Your task to perform on an android device: turn pop-ups off in chrome Image 0: 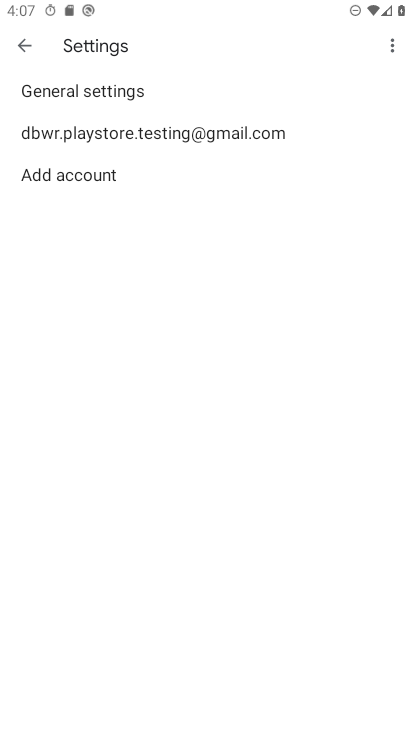
Step 0: press home button
Your task to perform on an android device: turn pop-ups off in chrome Image 1: 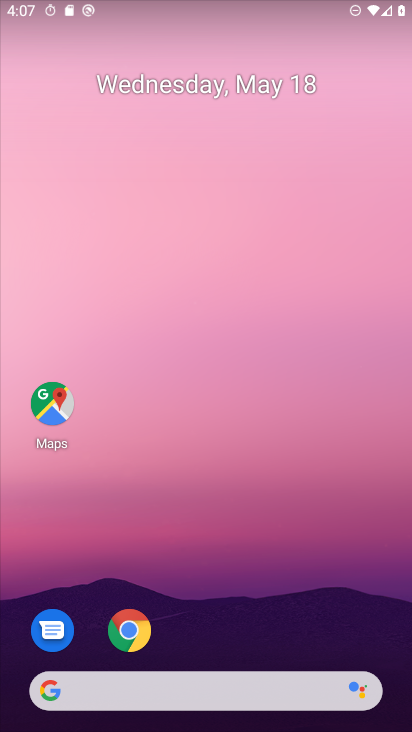
Step 1: click (131, 624)
Your task to perform on an android device: turn pop-ups off in chrome Image 2: 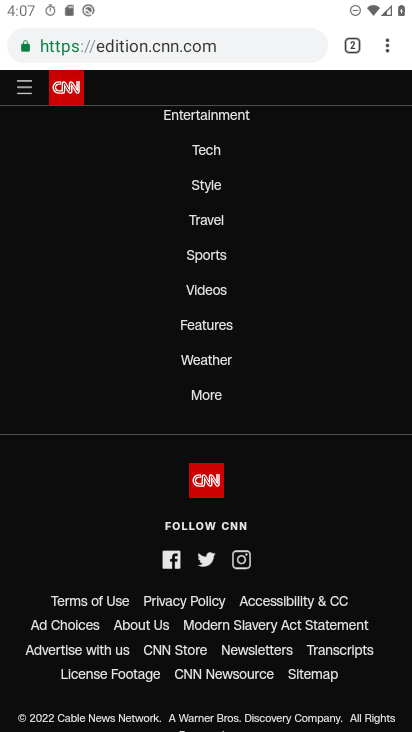
Step 2: click (387, 44)
Your task to perform on an android device: turn pop-ups off in chrome Image 3: 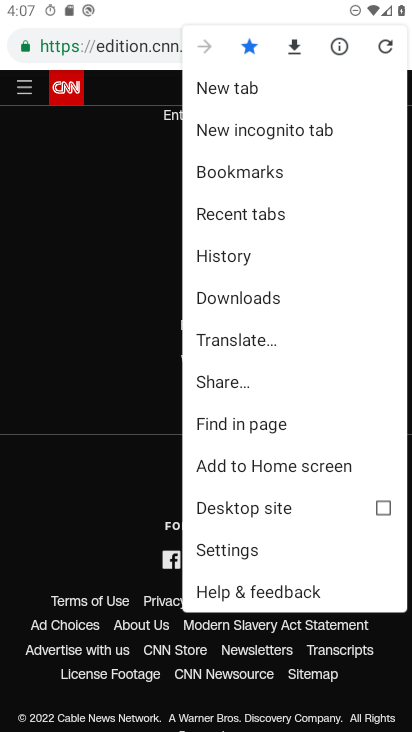
Step 3: click (259, 544)
Your task to perform on an android device: turn pop-ups off in chrome Image 4: 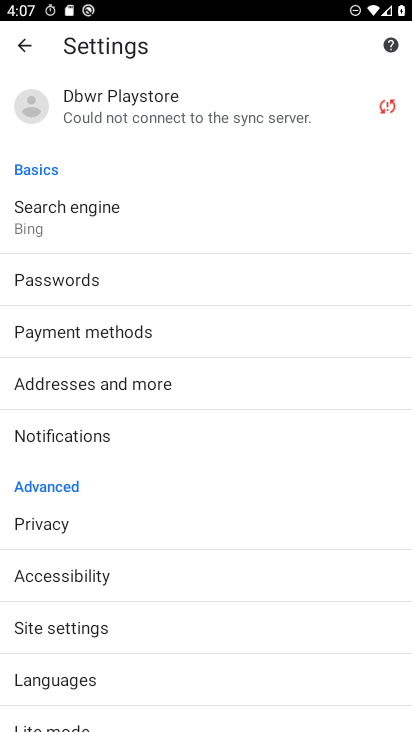
Step 4: click (125, 621)
Your task to perform on an android device: turn pop-ups off in chrome Image 5: 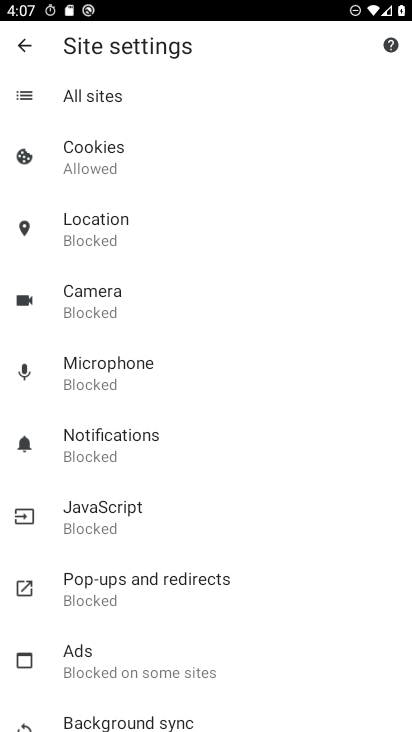
Step 5: click (152, 592)
Your task to perform on an android device: turn pop-ups off in chrome Image 6: 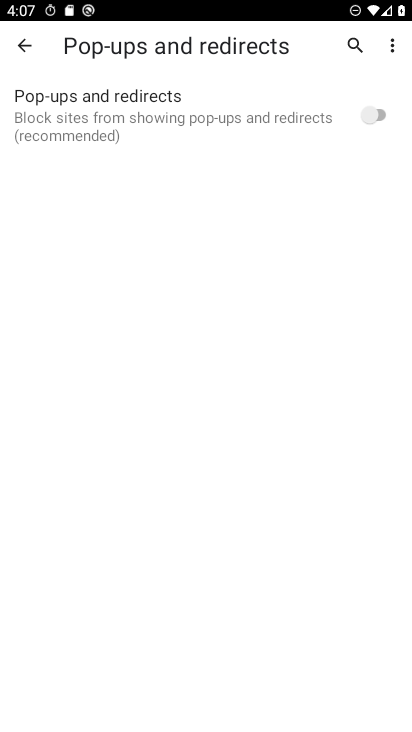
Step 6: task complete